Your task to perform on an android device: open a new tab in the chrome app Image 0: 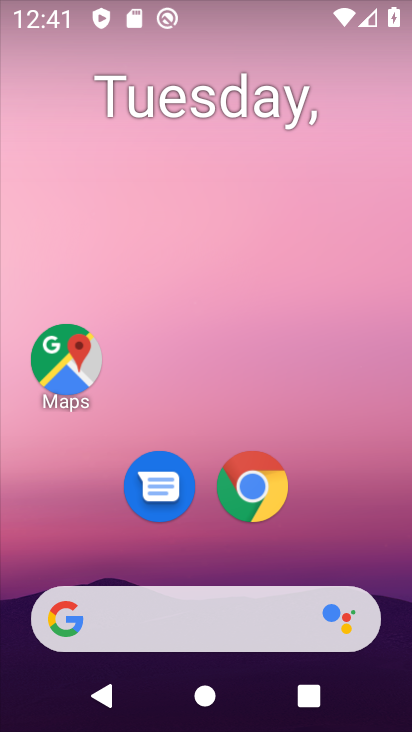
Step 0: click (276, 491)
Your task to perform on an android device: open a new tab in the chrome app Image 1: 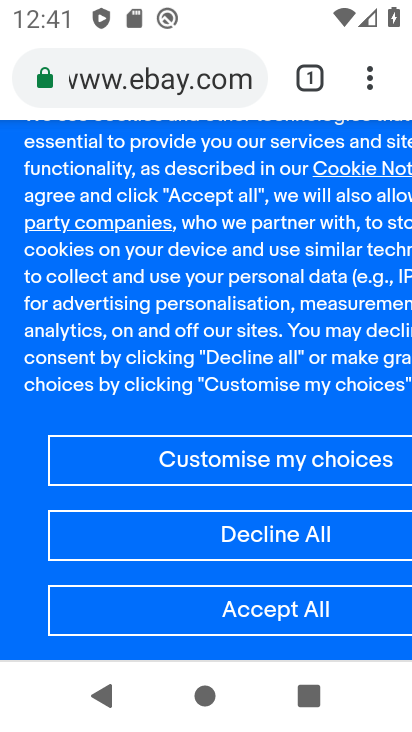
Step 1: click (367, 81)
Your task to perform on an android device: open a new tab in the chrome app Image 2: 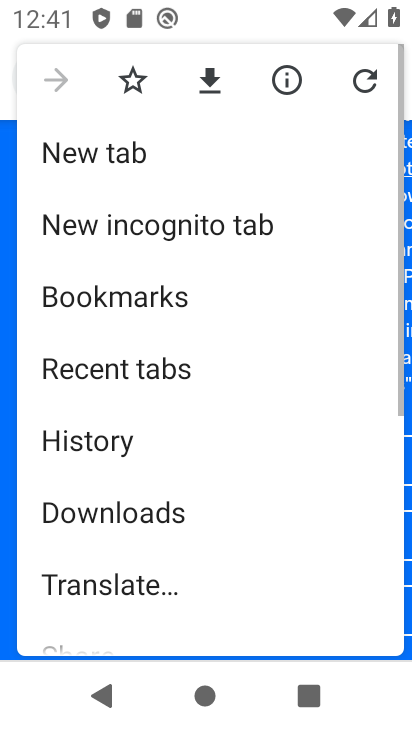
Step 2: click (281, 136)
Your task to perform on an android device: open a new tab in the chrome app Image 3: 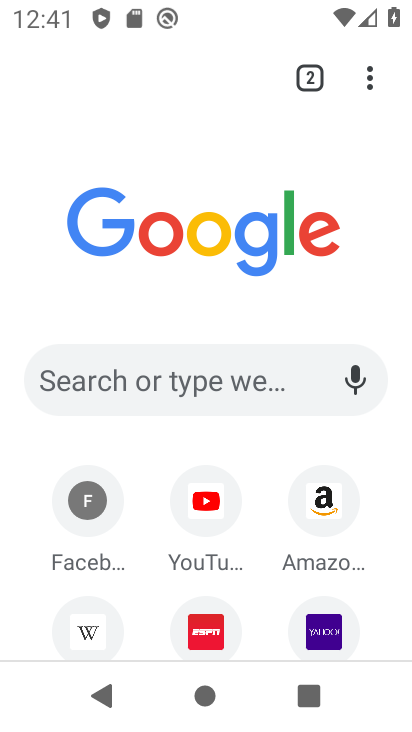
Step 3: task complete